Your task to perform on an android device: Open calendar and show me the fourth week of next month Image 0: 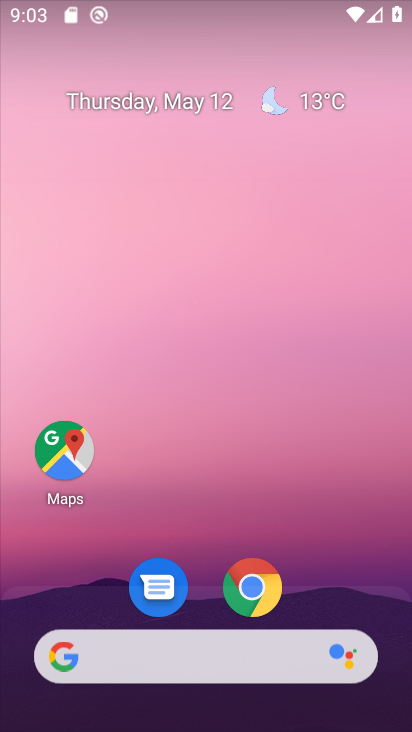
Step 0: drag from (206, 636) to (168, 12)
Your task to perform on an android device: Open calendar and show me the fourth week of next month Image 1: 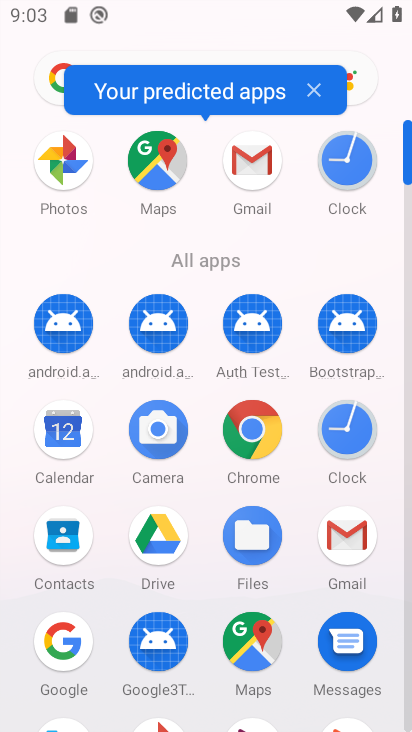
Step 1: click (74, 429)
Your task to perform on an android device: Open calendar and show me the fourth week of next month Image 2: 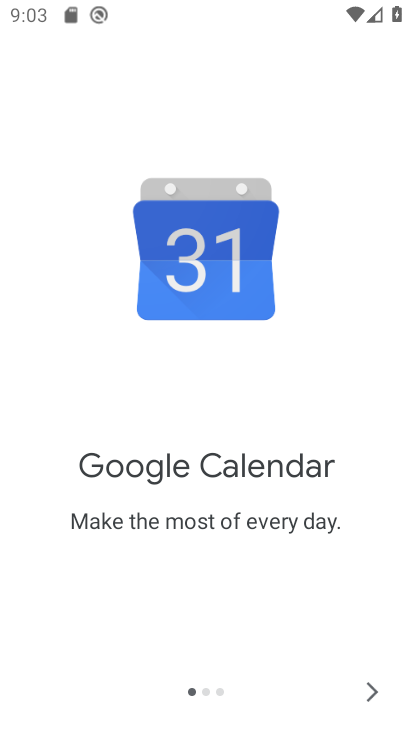
Step 2: click (363, 696)
Your task to perform on an android device: Open calendar and show me the fourth week of next month Image 3: 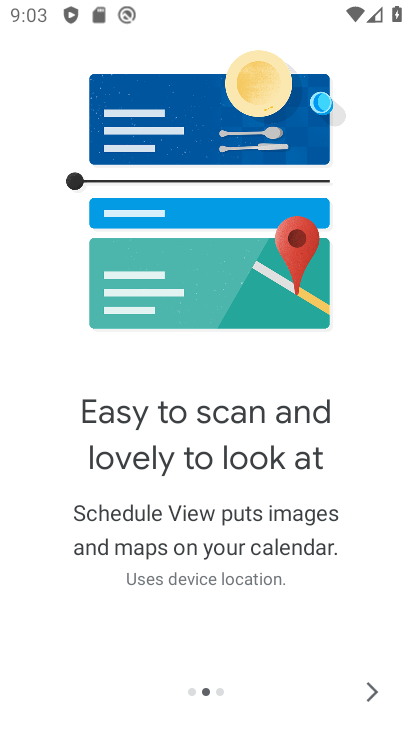
Step 3: click (361, 691)
Your task to perform on an android device: Open calendar and show me the fourth week of next month Image 4: 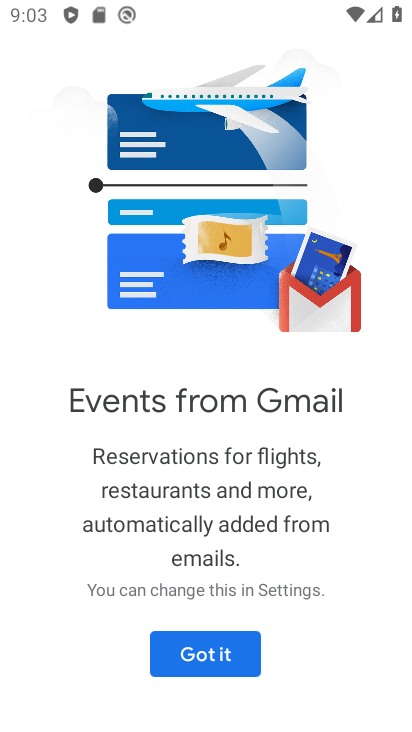
Step 4: click (220, 645)
Your task to perform on an android device: Open calendar and show me the fourth week of next month Image 5: 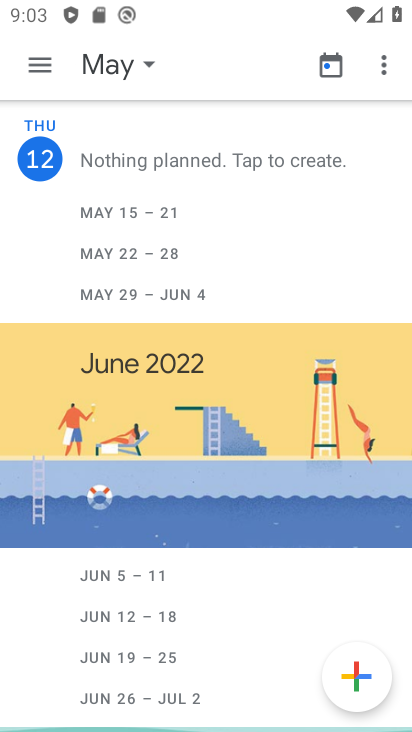
Step 5: click (30, 62)
Your task to perform on an android device: Open calendar and show me the fourth week of next month Image 6: 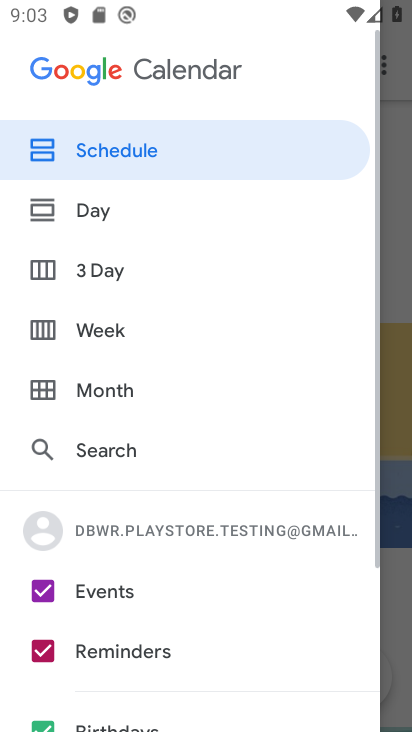
Step 6: click (114, 330)
Your task to perform on an android device: Open calendar and show me the fourth week of next month Image 7: 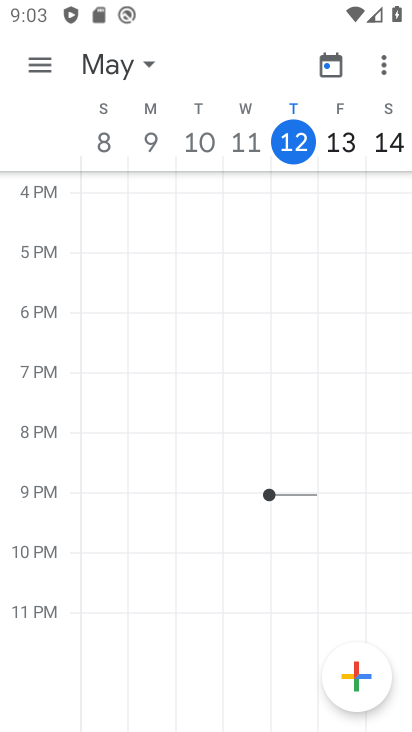
Step 7: task complete